Your task to perform on an android device: turn notification dots off Image 0: 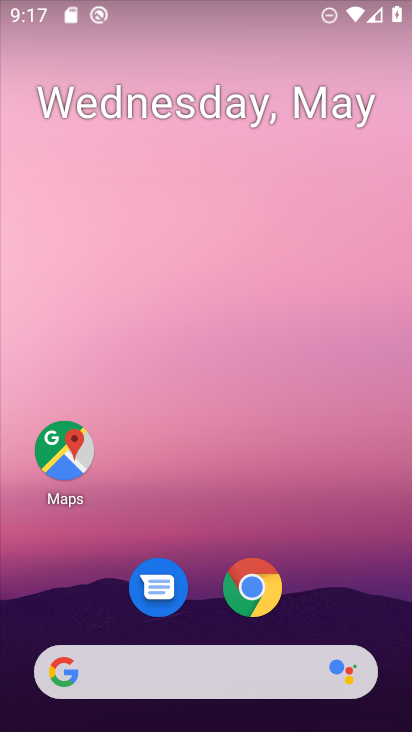
Step 0: drag from (212, 725) to (198, 118)
Your task to perform on an android device: turn notification dots off Image 1: 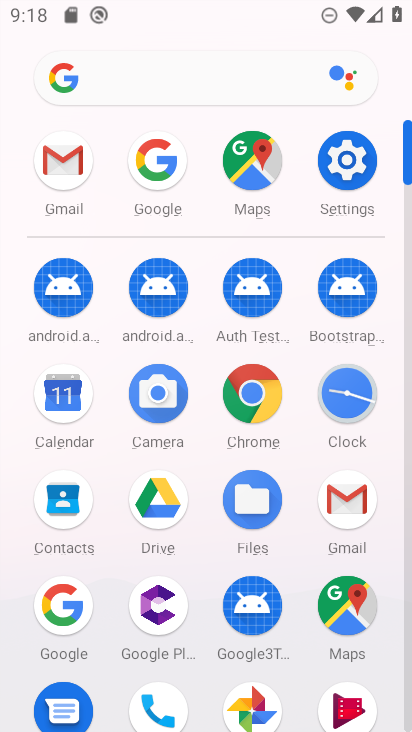
Step 1: click (346, 168)
Your task to perform on an android device: turn notification dots off Image 2: 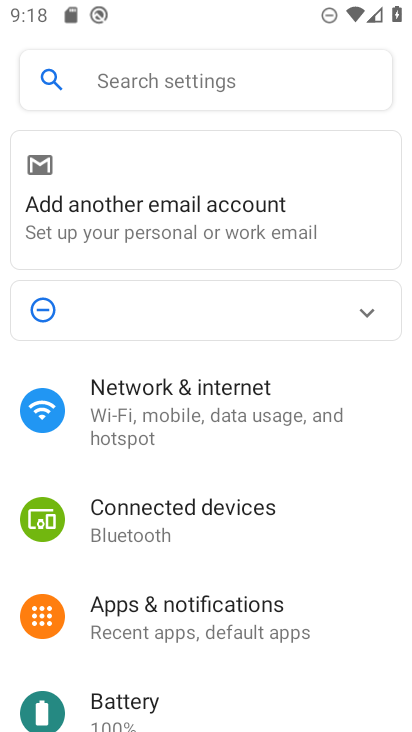
Step 2: click (257, 613)
Your task to perform on an android device: turn notification dots off Image 3: 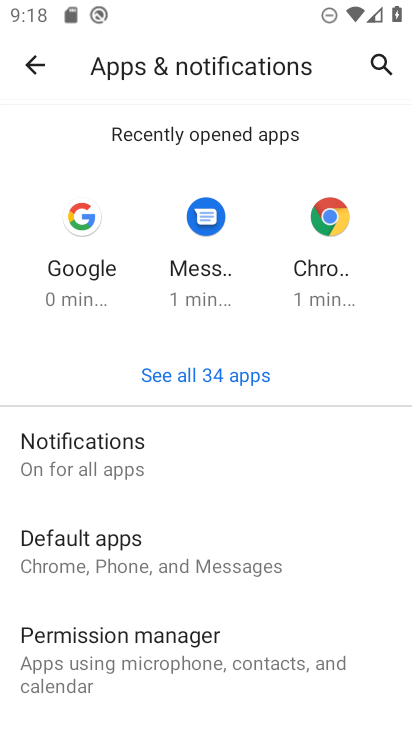
Step 3: click (102, 455)
Your task to perform on an android device: turn notification dots off Image 4: 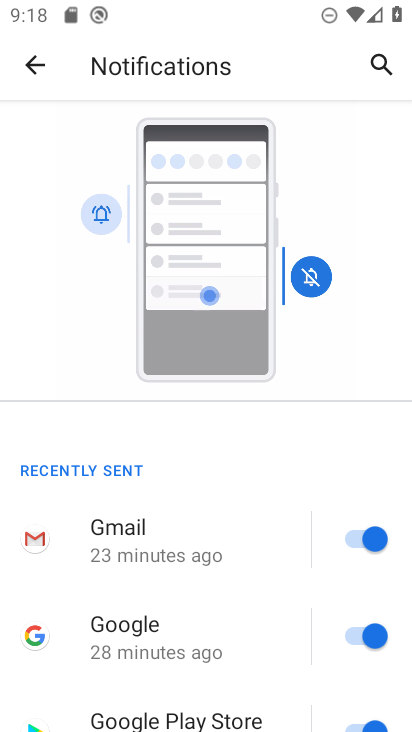
Step 4: drag from (225, 701) to (227, 346)
Your task to perform on an android device: turn notification dots off Image 5: 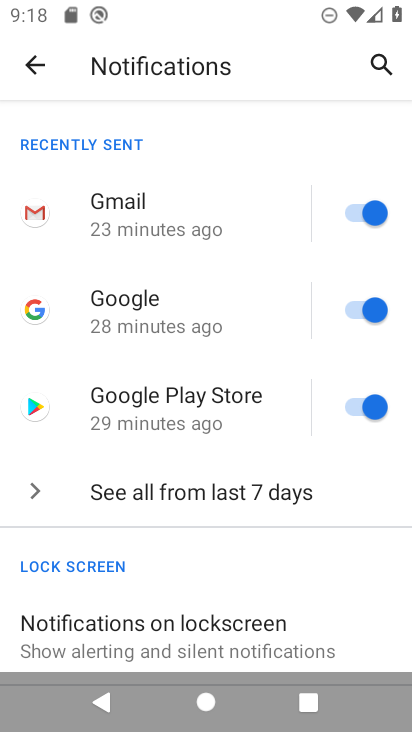
Step 5: drag from (186, 672) to (189, 306)
Your task to perform on an android device: turn notification dots off Image 6: 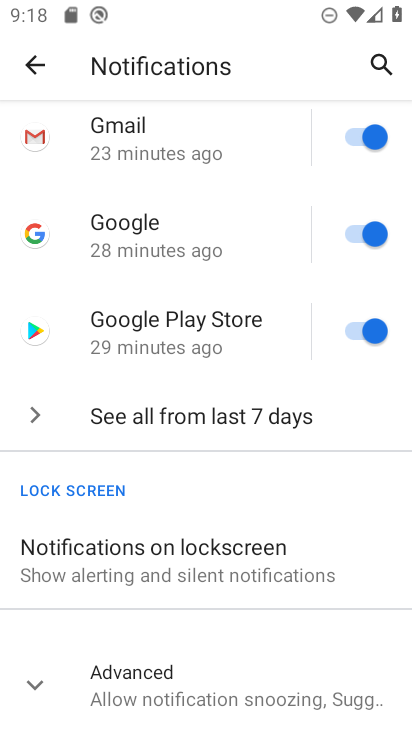
Step 6: click (129, 678)
Your task to perform on an android device: turn notification dots off Image 7: 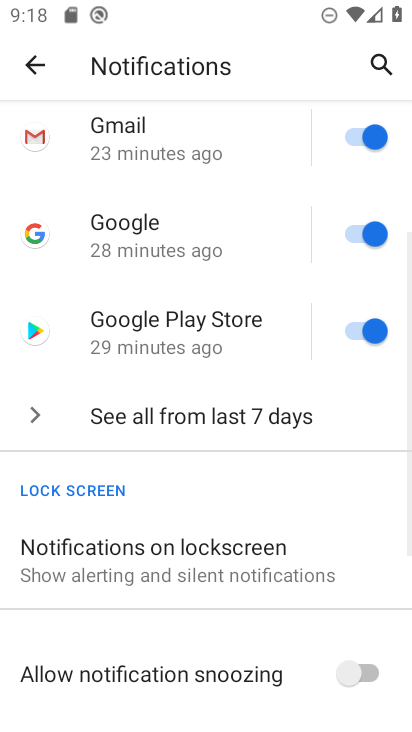
Step 7: drag from (149, 687) to (163, 287)
Your task to perform on an android device: turn notification dots off Image 8: 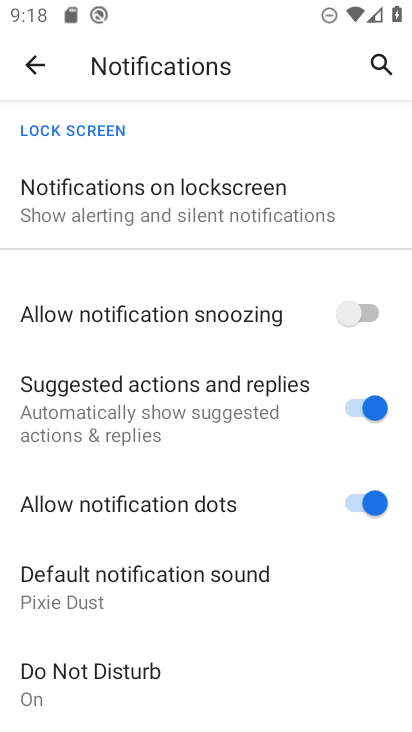
Step 8: click (347, 501)
Your task to perform on an android device: turn notification dots off Image 9: 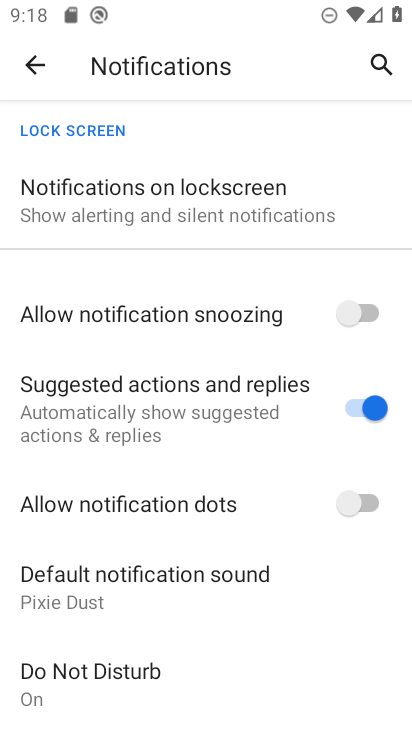
Step 9: task complete